Your task to perform on an android device: open app "Lyft - Rideshare, Bikes, Scooters & Transit" Image 0: 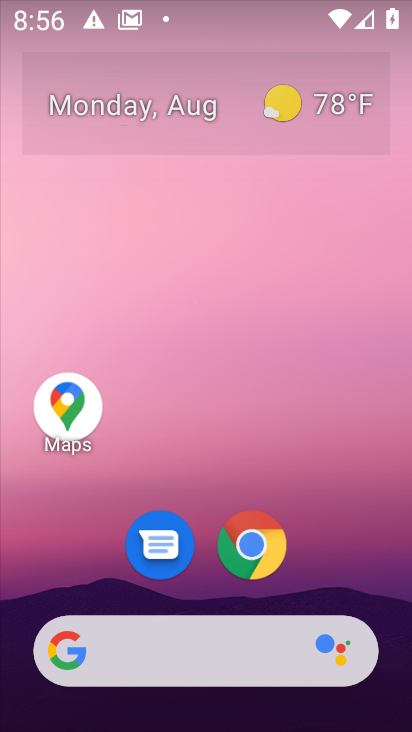
Step 0: press home button
Your task to perform on an android device: open app "Lyft - Rideshare, Bikes, Scooters & Transit" Image 1: 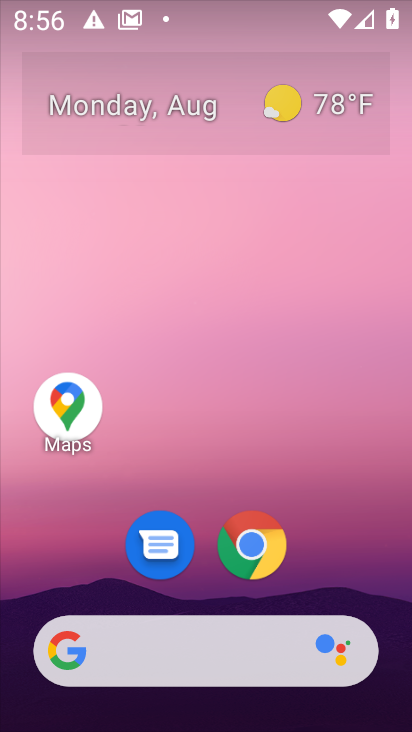
Step 1: drag from (364, 586) to (385, 160)
Your task to perform on an android device: open app "Lyft - Rideshare, Bikes, Scooters & Transit" Image 2: 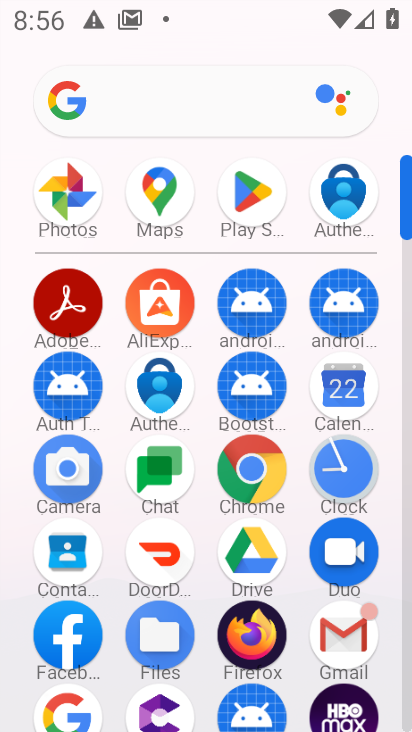
Step 2: click (242, 183)
Your task to perform on an android device: open app "Lyft - Rideshare, Bikes, Scooters & Transit" Image 3: 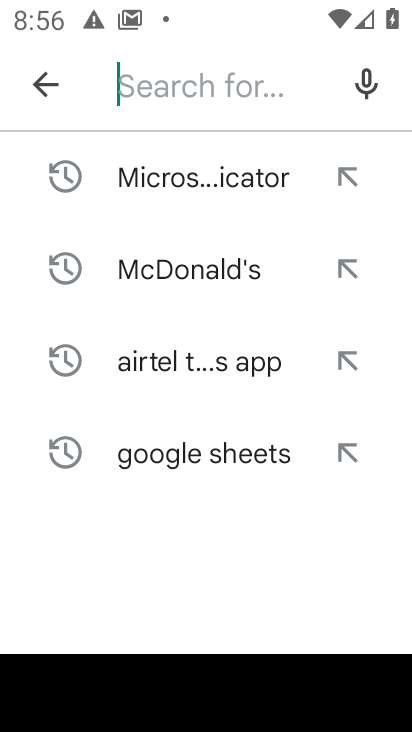
Step 3: type "Lyft - Rideshare, Bikes, Scooters & Transit"
Your task to perform on an android device: open app "Lyft - Rideshare, Bikes, Scooters & Transit" Image 4: 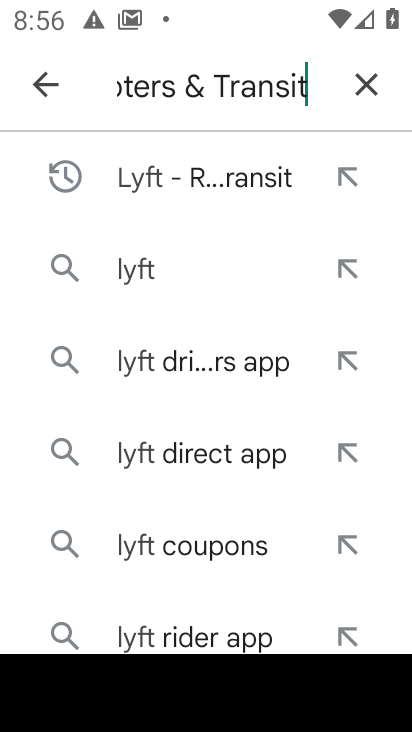
Step 4: press enter
Your task to perform on an android device: open app "Lyft - Rideshare, Bikes, Scooters & Transit" Image 5: 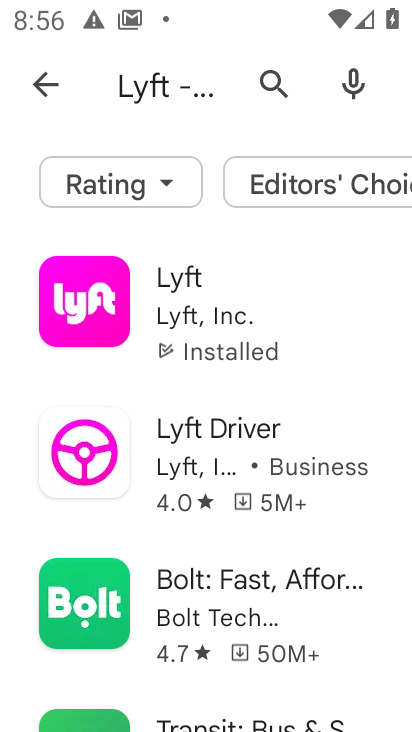
Step 5: click (186, 309)
Your task to perform on an android device: open app "Lyft - Rideshare, Bikes, Scooters & Transit" Image 6: 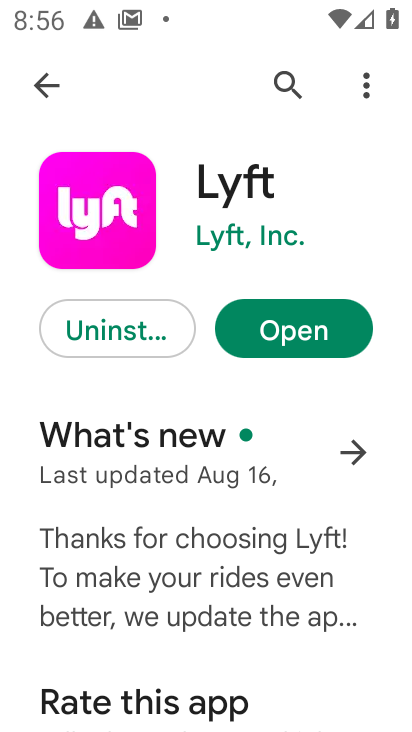
Step 6: click (293, 339)
Your task to perform on an android device: open app "Lyft - Rideshare, Bikes, Scooters & Transit" Image 7: 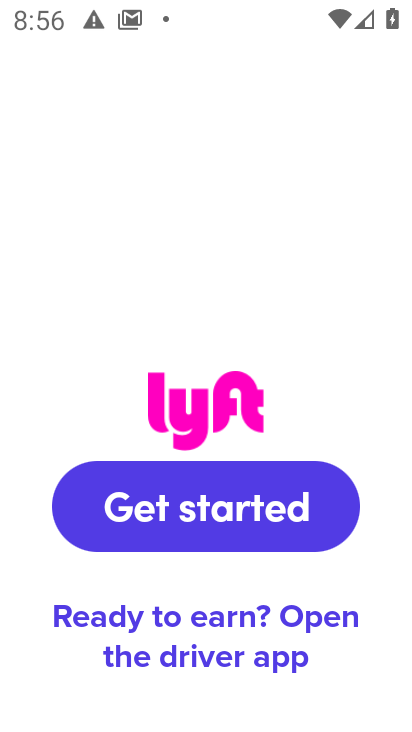
Step 7: task complete